Your task to perform on an android device: Search for Mexican restaurants on Maps Image 0: 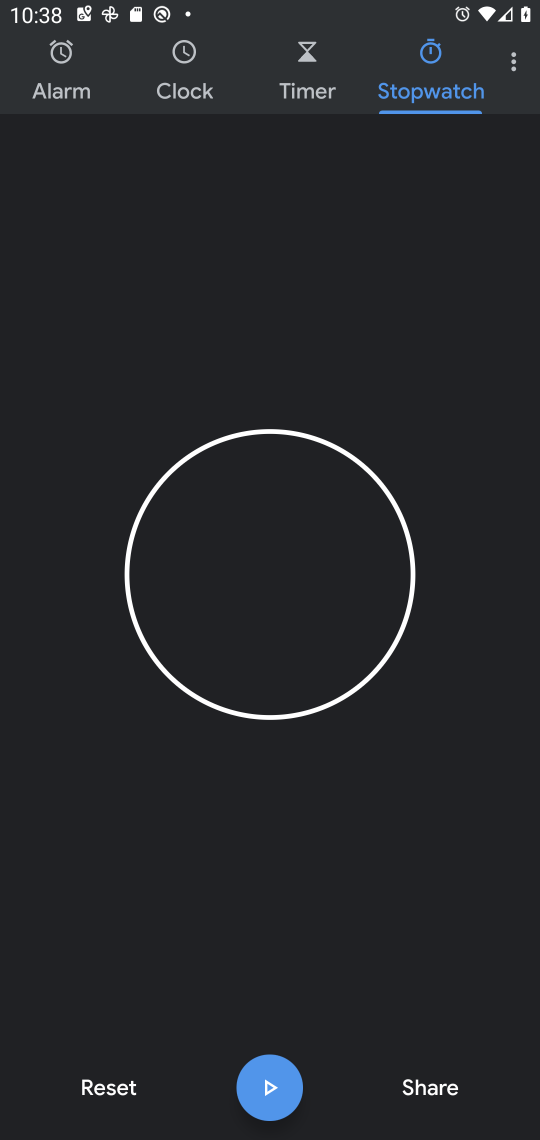
Step 0: press home button
Your task to perform on an android device: Search for Mexican restaurants on Maps Image 1: 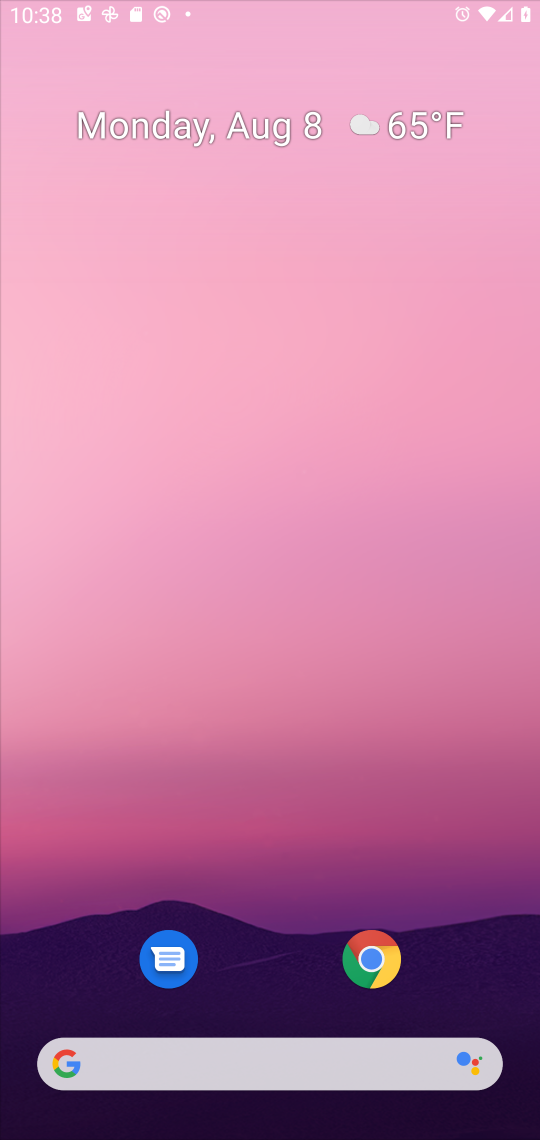
Step 1: drag from (502, 1001) to (273, 66)
Your task to perform on an android device: Search for Mexican restaurants on Maps Image 2: 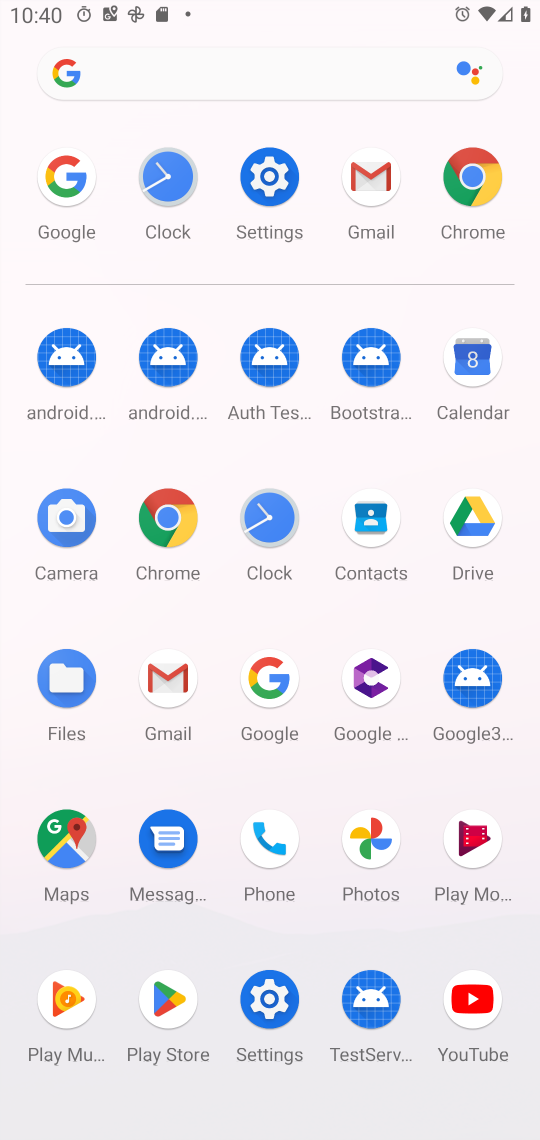
Step 2: click (64, 855)
Your task to perform on an android device: Search for Mexican restaurants on Maps Image 3: 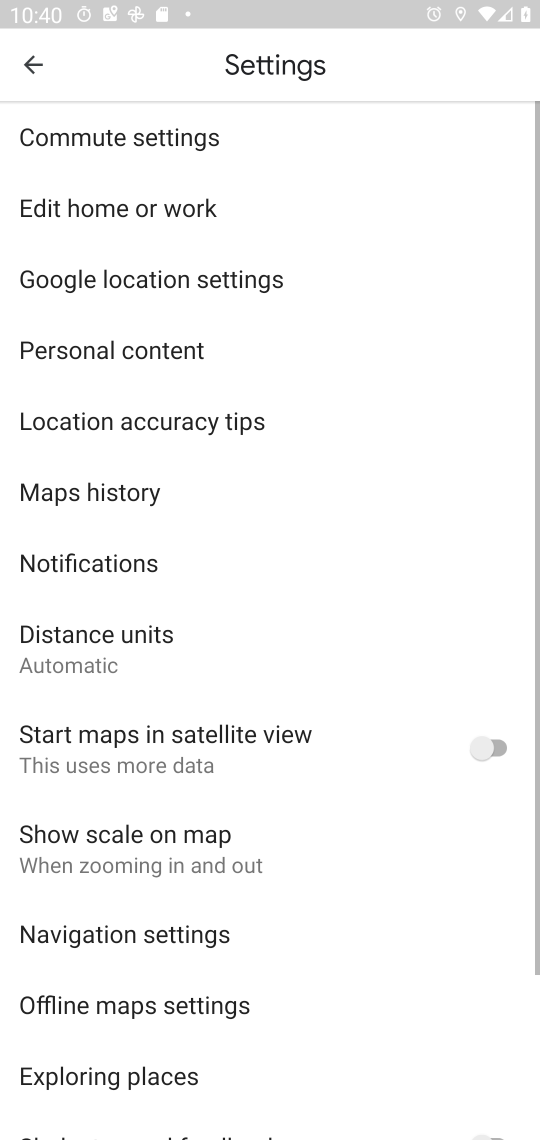
Step 3: press back button
Your task to perform on an android device: Search for Mexican restaurants on Maps Image 4: 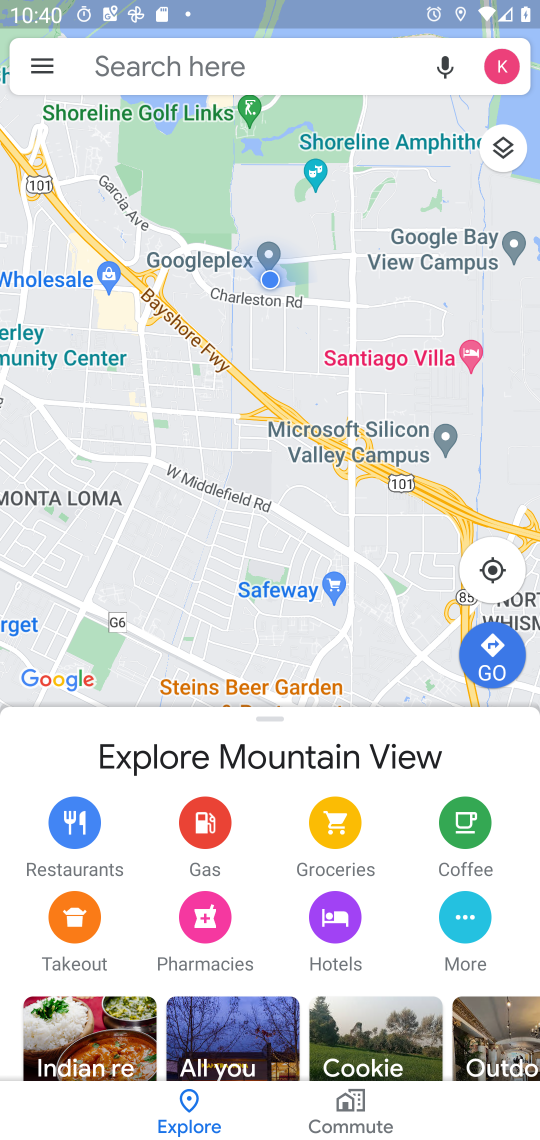
Step 4: click (174, 78)
Your task to perform on an android device: Search for Mexican restaurants on Maps Image 5: 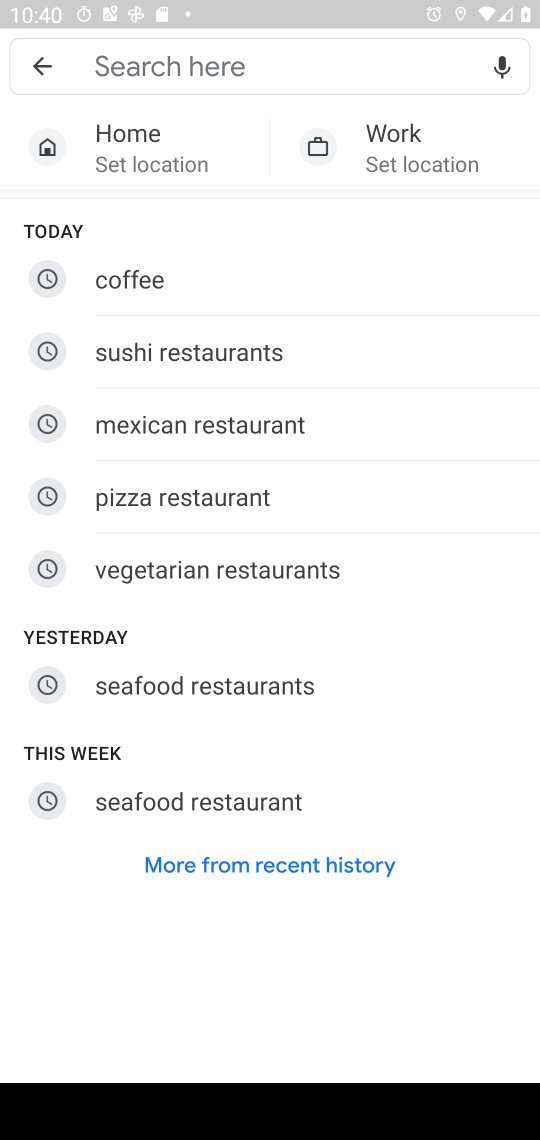
Step 5: click (155, 429)
Your task to perform on an android device: Search for Mexican restaurants on Maps Image 6: 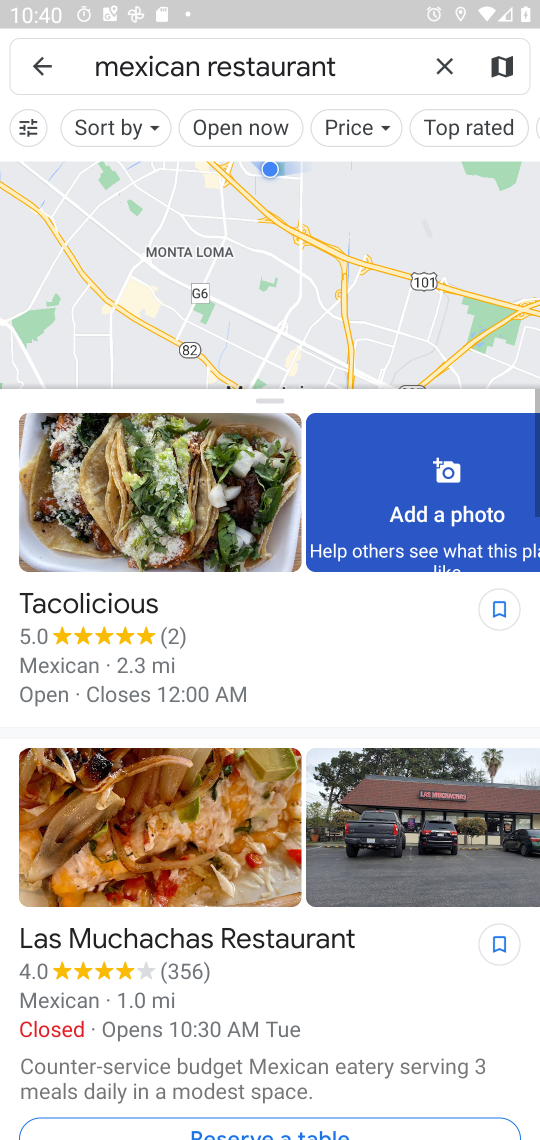
Step 6: task complete